Your task to perform on an android device: turn off picture-in-picture Image 0: 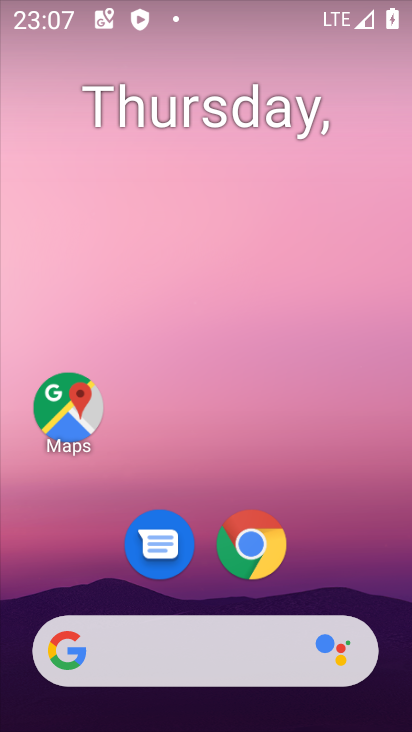
Step 0: drag from (338, 484) to (194, 153)
Your task to perform on an android device: turn off picture-in-picture Image 1: 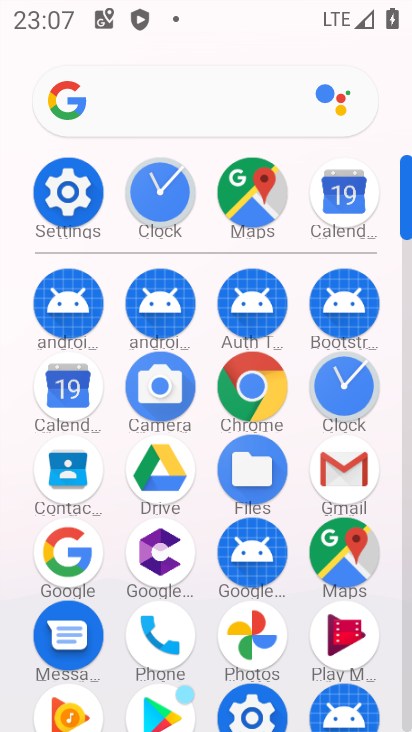
Step 1: click (67, 177)
Your task to perform on an android device: turn off picture-in-picture Image 2: 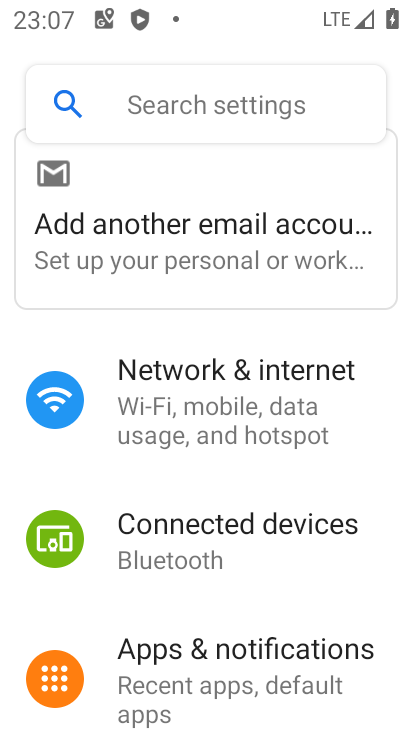
Step 2: click (182, 678)
Your task to perform on an android device: turn off picture-in-picture Image 3: 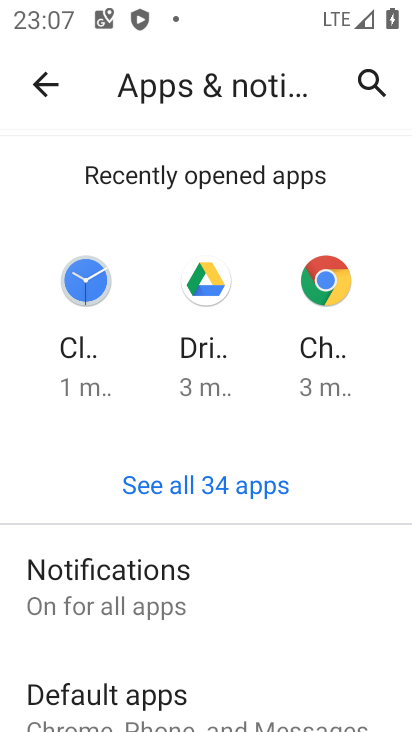
Step 3: drag from (206, 645) to (216, 209)
Your task to perform on an android device: turn off picture-in-picture Image 4: 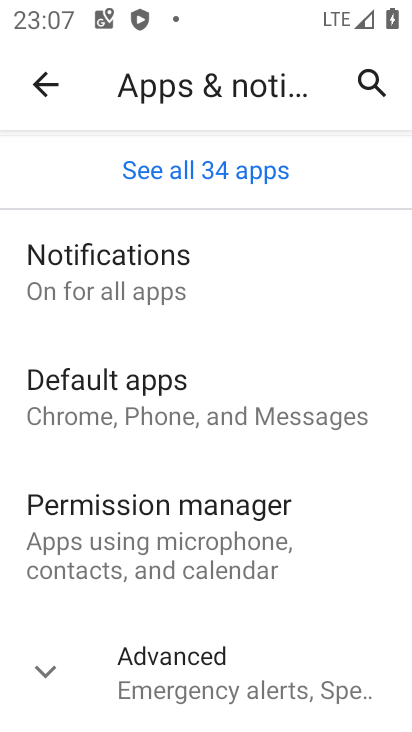
Step 4: click (148, 658)
Your task to perform on an android device: turn off picture-in-picture Image 5: 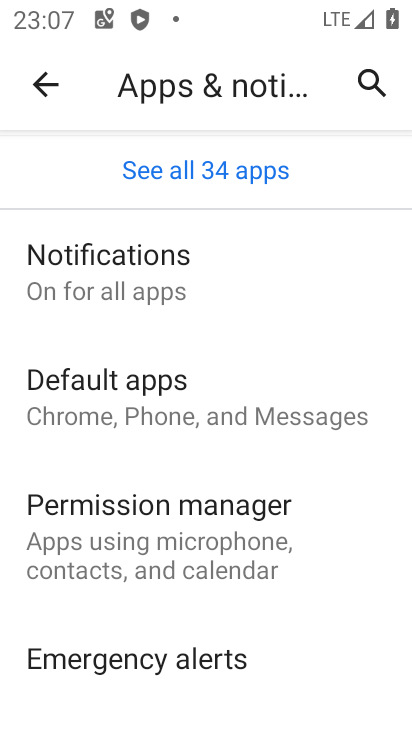
Step 5: drag from (152, 650) to (148, 319)
Your task to perform on an android device: turn off picture-in-picture Image 6: 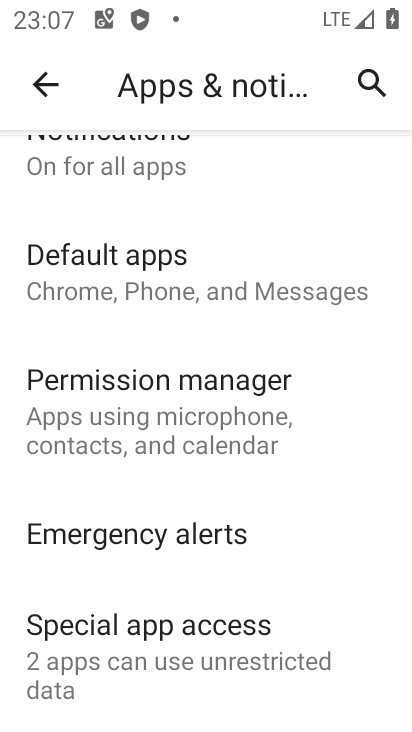
Step 6: click (121, 640)
Your task to perform on an android device: turn off picture-in-picture Image 7: 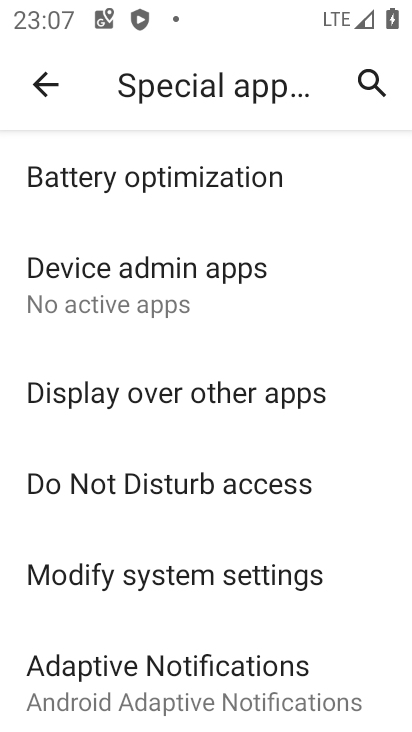
Step 7: drag from (140, 622) to (127, 193)
Your task to perform on an android device: turn off picture-in-picture Image 8: 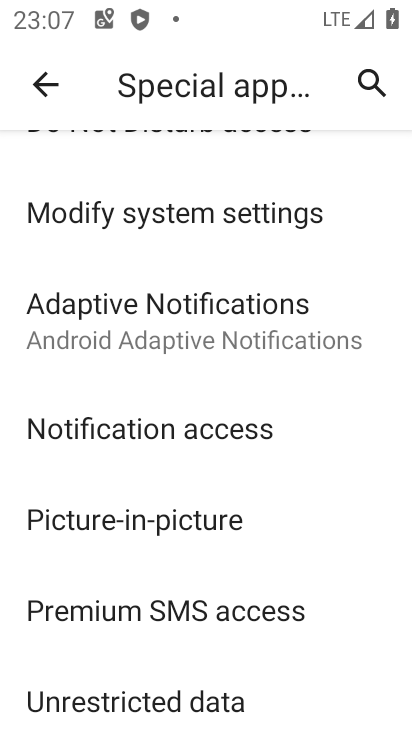
Step 8: click (109, 520)
Your task to perform on an android device: turn off picture-in-picture Image 9: 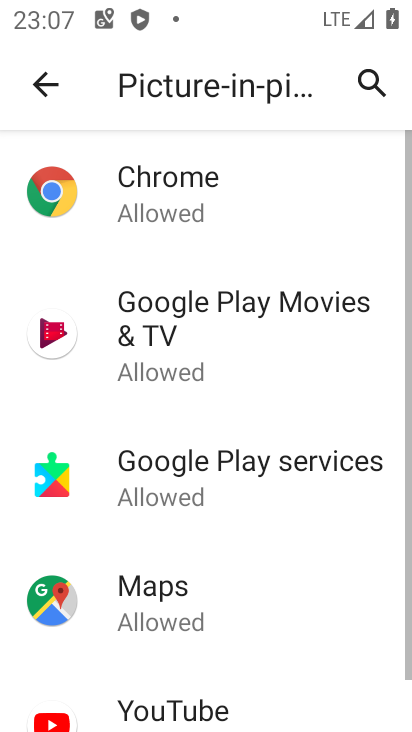
Step 9: click (109, 520)
Your task to perform on an android device: turn off picture-in-picture Image 10: 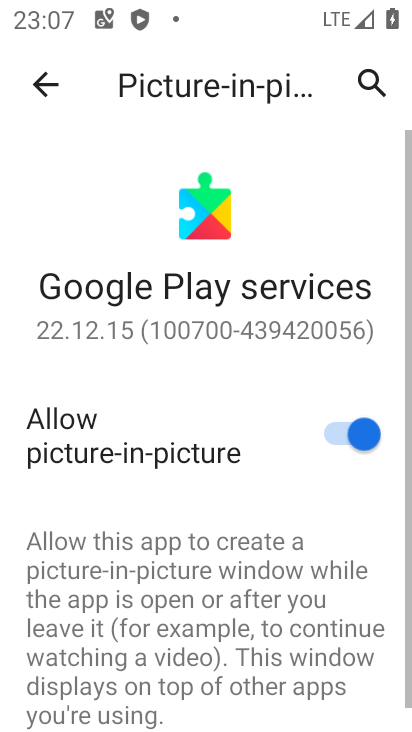
Step 10: click (361, 437)
Your task to perform on an android device: turn off picture-in-picture Image 11: 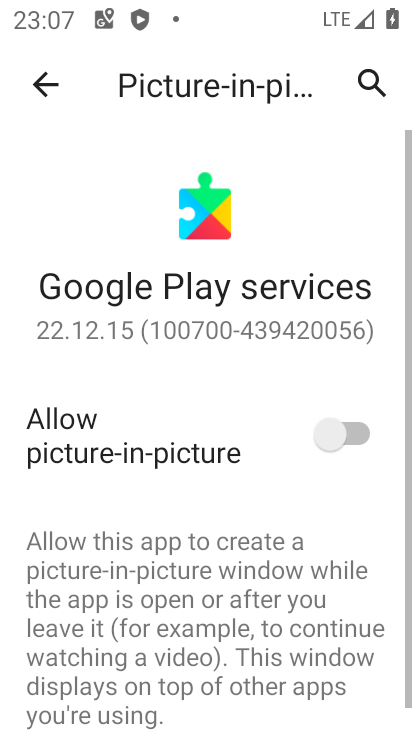
Step 11: task complete